Your task to perform on an android device: turn off priority inbox in the gmail app Image 0: 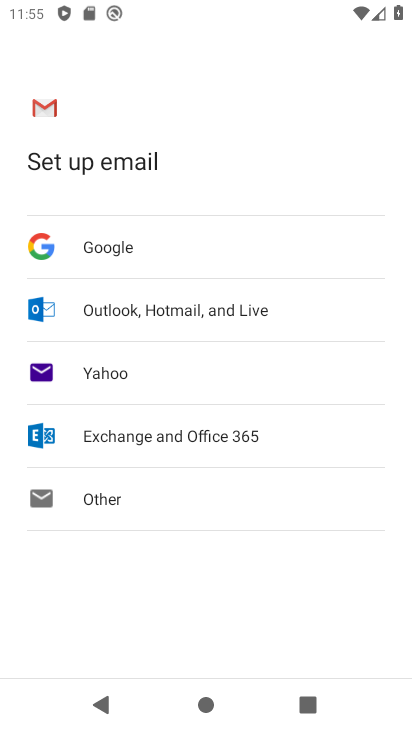
Step 0: press home button
Your task to perform on an android device: turn off priority inbox in the gmail app Image 1: 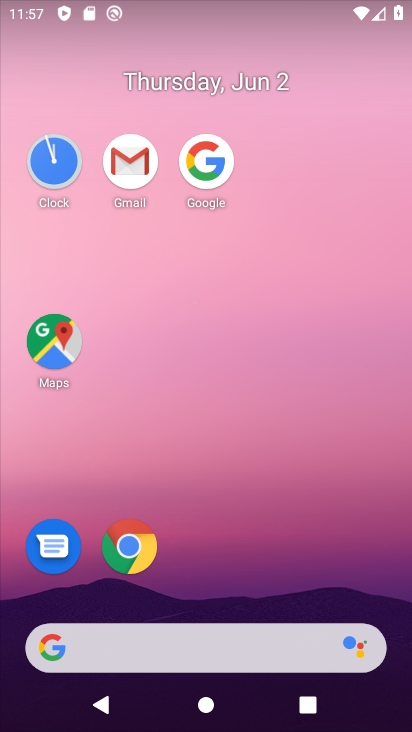
Step 1: click (137, 156)
Your task to perform on an android device: turn off priority inbox in the gmail app Image 2: 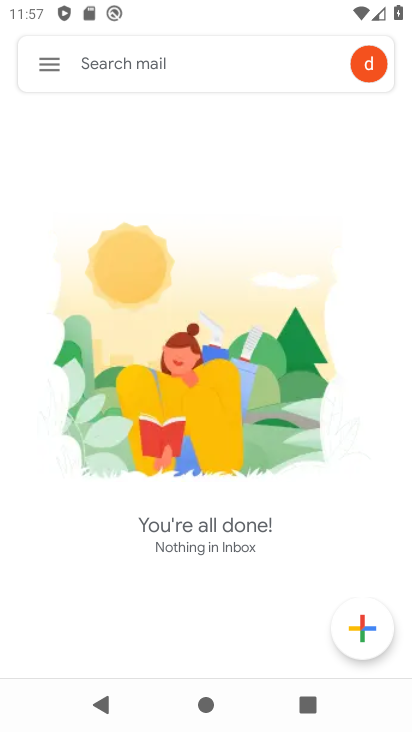
Step 2: click (60, 74)
Your task to perform on an android device: turn off priority inbox in the gmail app Image 3: 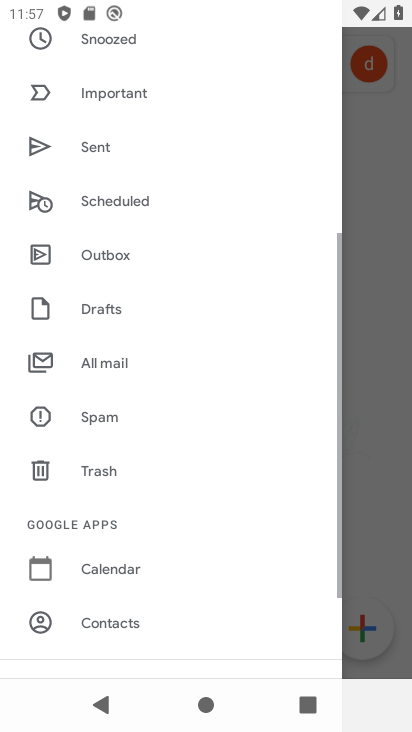
Step 3: drag from (236, 495) to (206, 187)
Your task to perform on an android device: turn off priority inbox in the gmail app Image 4: 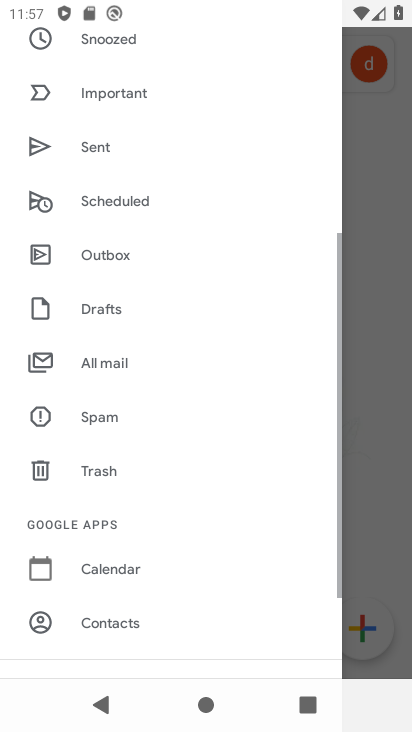
Step 4: drag from (161, 558) to (266, 171)
Your task to perform on an android device: turn off priority inbox in the gmail app Image 5: 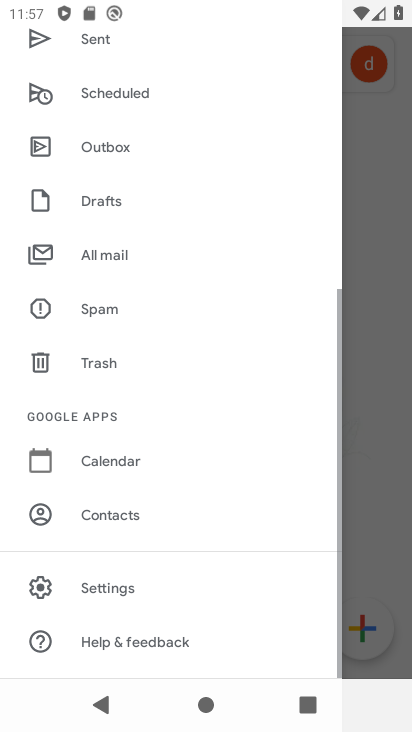
Step 5: click (130, 585)
Your task to perform on an android device: turn off priority inbox in the gmail app Image 6: 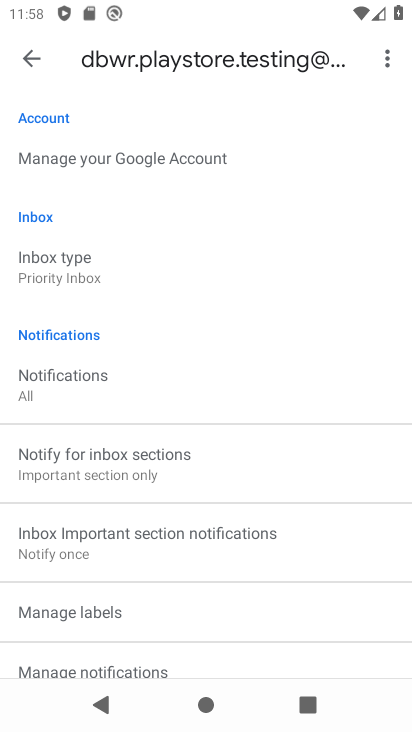
Step 6: click (128, 254)
Your task to perform on an android device: turn off priority inbox in the gmail app Image 7: 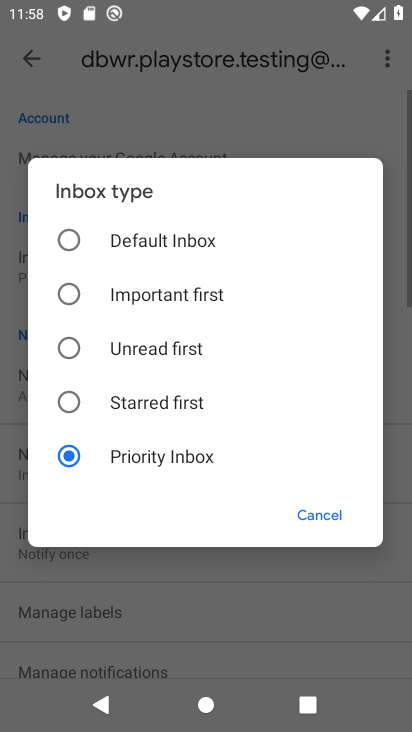
Step 7: click (161, 239)
Your task to perform on an android device: turn off priority inbox in the gmail app Image 8: 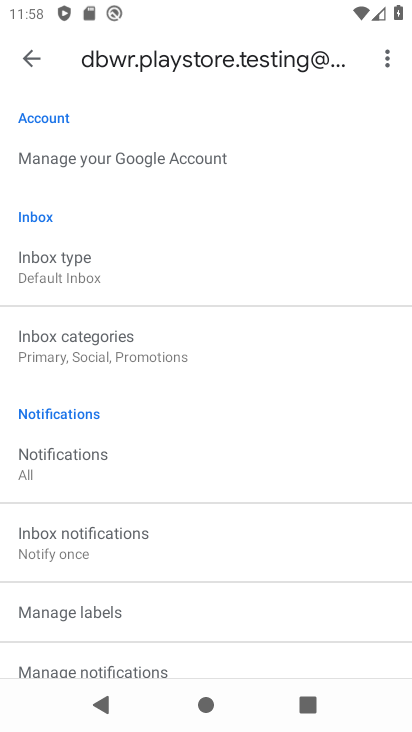
Step 8: task complete